Your task to perform on an android device: Go to settings Image 0: 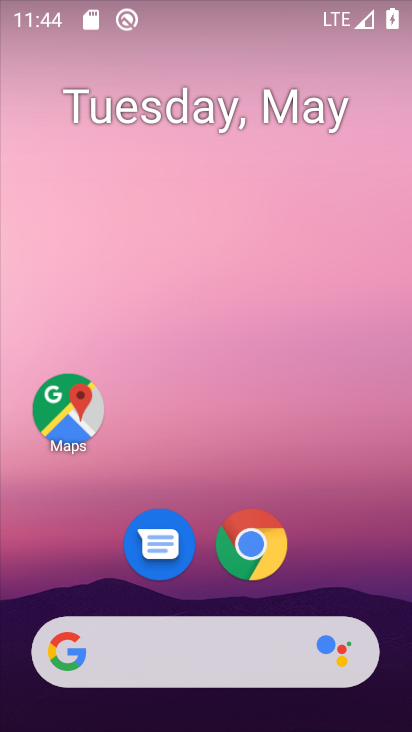
Step 0: press home button
Your task to perform on an android device: Go to settings Image 1: 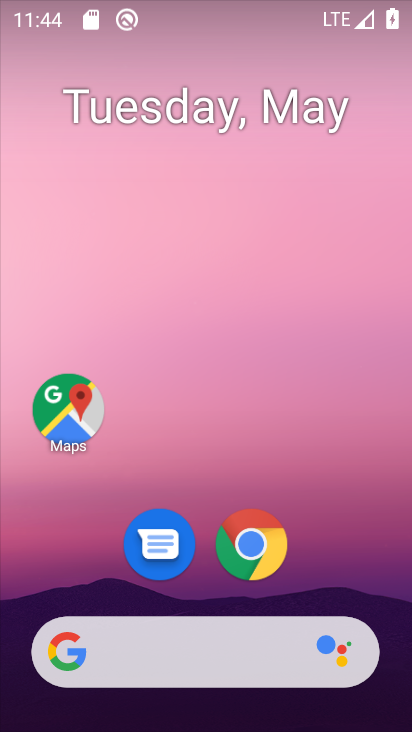
Step 1: click (248, 203)
Your task to perform on an android device: Go to settings Image 2: 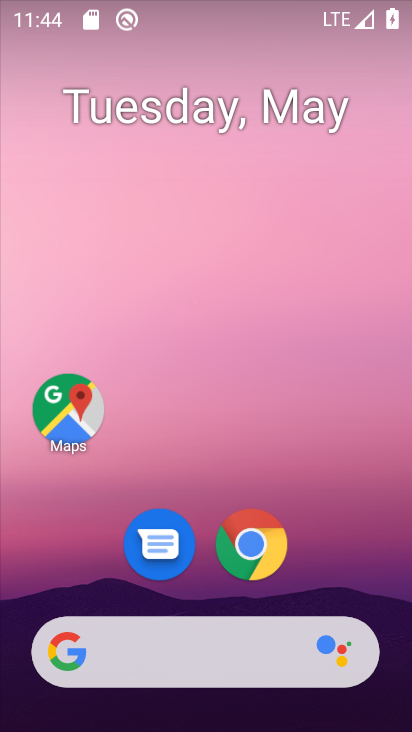
Step 2: drag from (198, 515) to (194, 239)
Your task to perform on an android device: Go to settings Image 3: 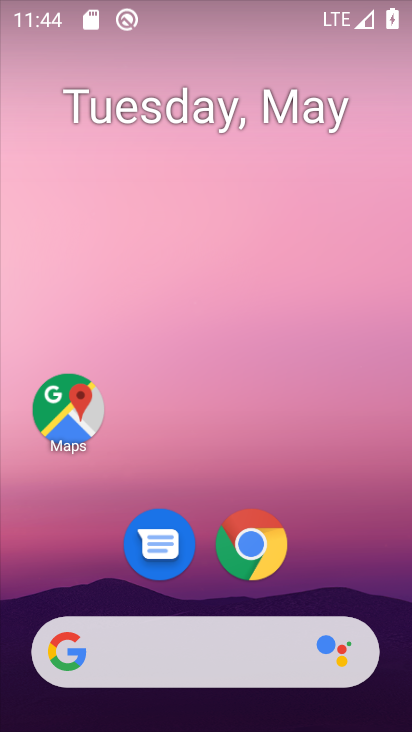
Step 3: drag from (211, 464) to (246, 125)
Your task to perform on an android device: Go to settings Image 4: 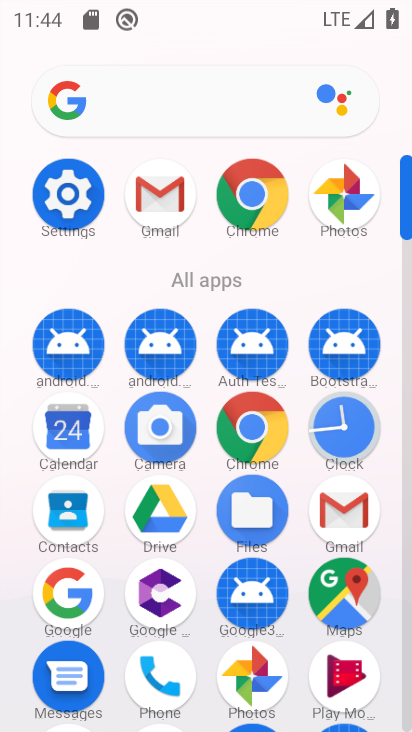
Step 4: click (87, 222)
Your task to perform on an android device: Go to settings Image 5: 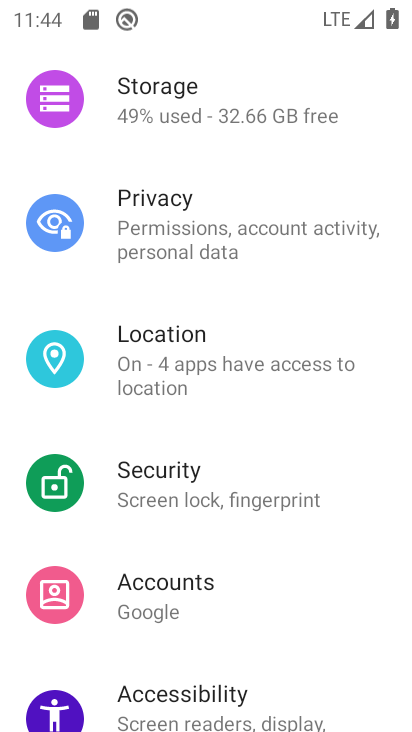
Step 5: task complete